Your task to perform on an android device: toggle sleep mode Image 0: 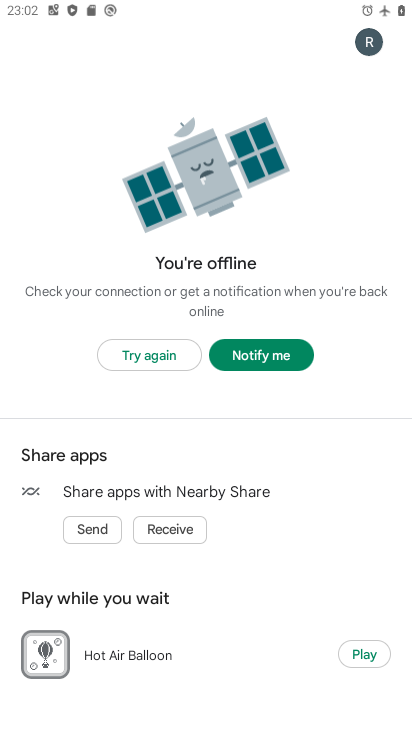
Step 0: press home button
Your task to perform on an android device: toggle sleep mode Image 1: 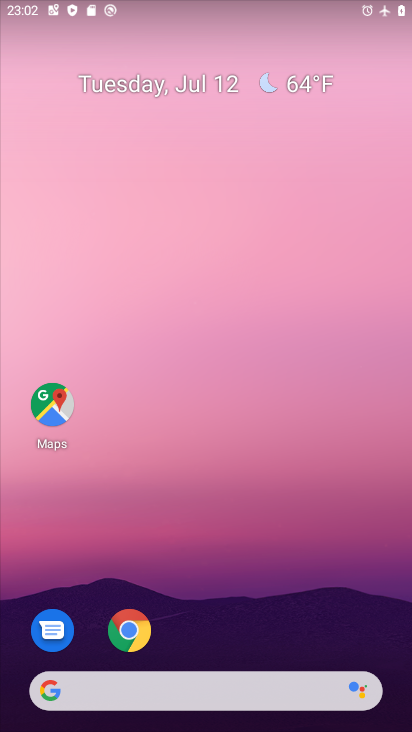
Step 1: drag from (197, 698) to (148, 53)
Your task to perform on an android device: toggle sleep mode Image 2: 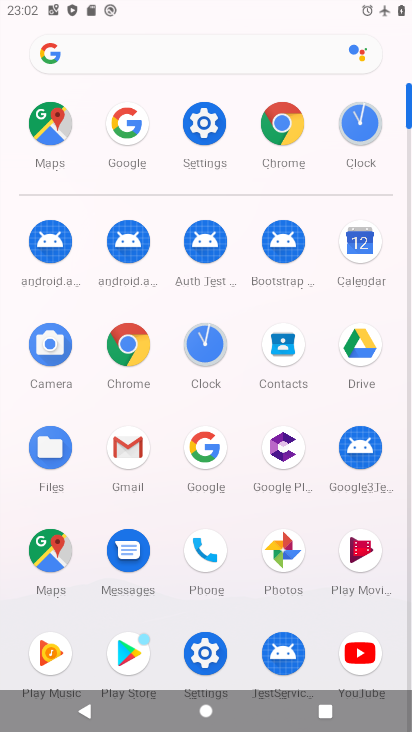
Step 2: click (189, 125)
Your task to perform on an android device: toggle sleep mode Image 3: 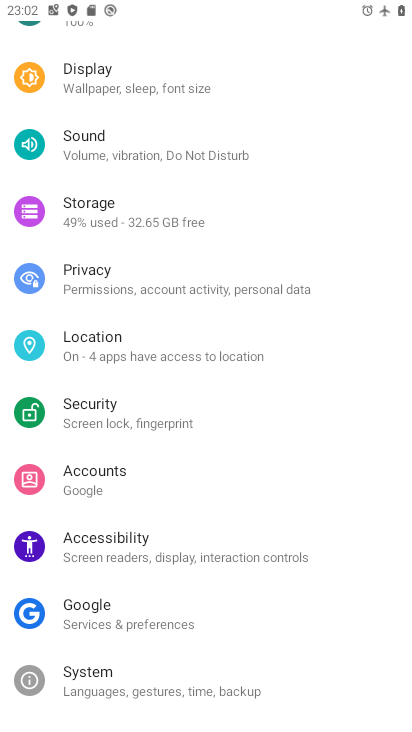
Step 3: click (95, 149)
Your task to perform on an android device: toggle sleep mode Image 4: 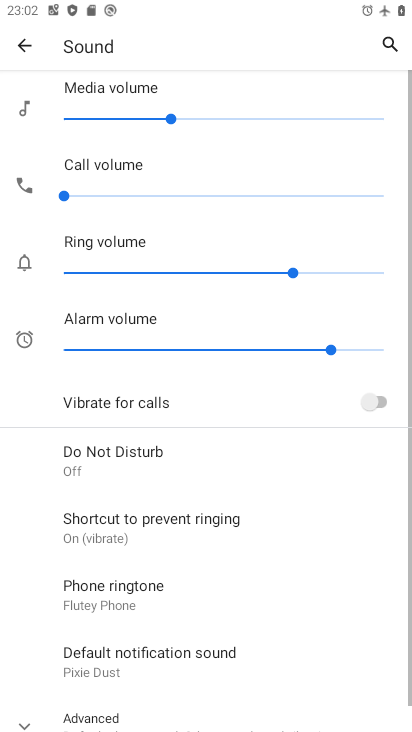
Step 4: task complete